Your task to perform on an android device: Search for runner rugs on Crate & Barrel Image 0: 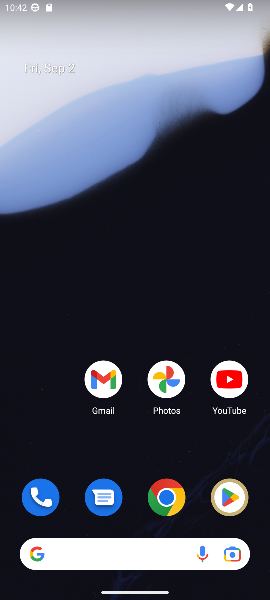
Step 0: drag from (129, 414) to (132, 29)
Your task to perform on an android device: Search for runner rugs on Crate & Barrel Image 1: 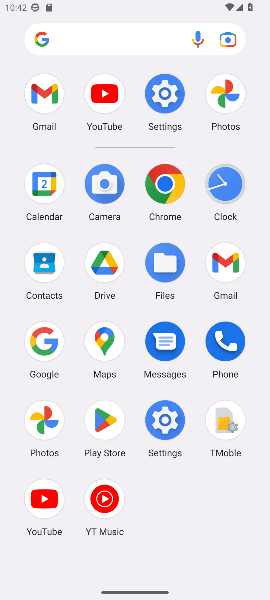
Step 1: click (41, 342)
Your task to perform on an android device: Search for runner rugs on Crate & Barrel Image 2: 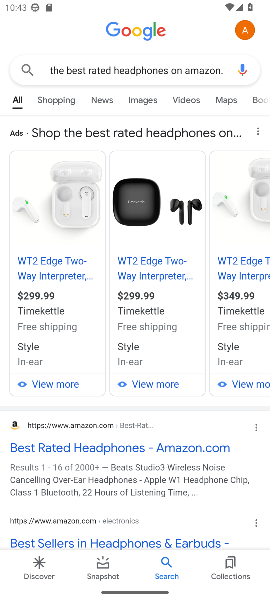
Step 2: click (140, 68)
Your task to perform on an android device: Search for runner rugs on Crate & Barrel Image 3: 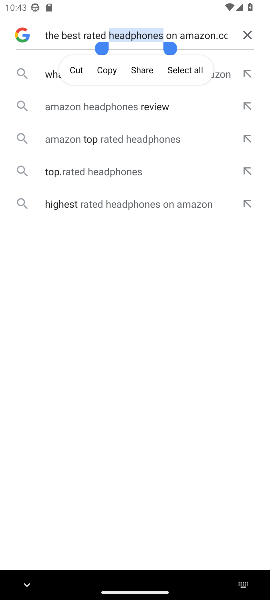
Step 3: click (246, 38)
Your task to perform on an android device: Search for runner rugs on Crate & Barrel Image 4: 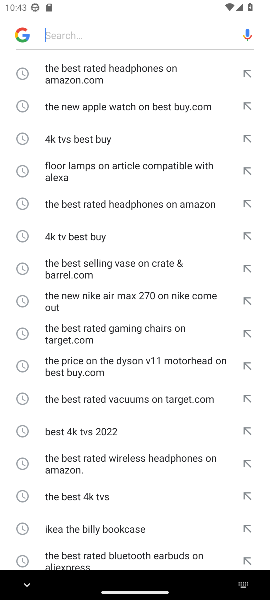
Step 4: type " runner rugs on Crate & Barrel"
Your task to perform on an android device: Search for runner rugs on Crate & Barrel Image 5: 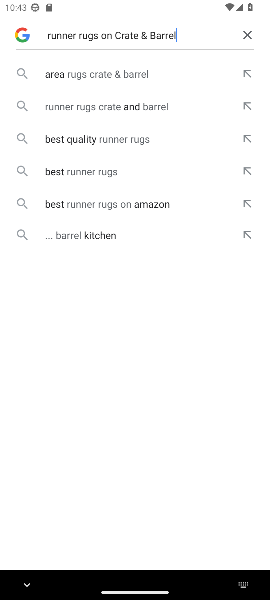
Step 5: click (76, 76)
Your task to perform on an android device: Search for runner rugs on Crate & Barrel Image 6: 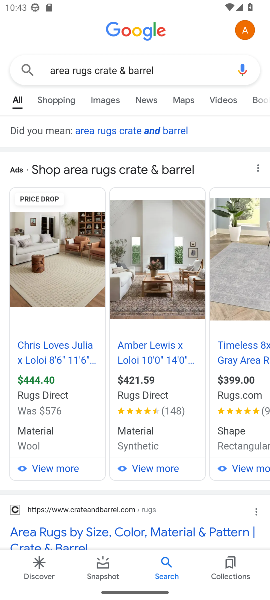
Step 6: task complete